Your task to perform on an android device: Go to Maps Image 0: 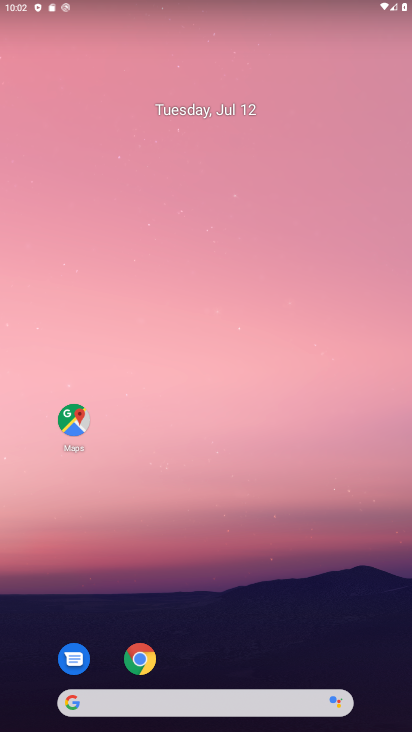
Step 0: drag from (189, 554) to (186, 447)
Your task to perform on an android device: Go to Maps Image 1: 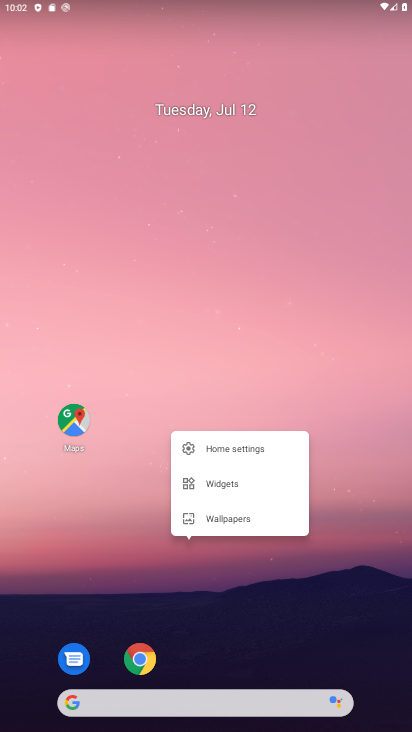
Step 1: click (72, 425)
Your task to perform on an android device: Go to Maps Image 2: 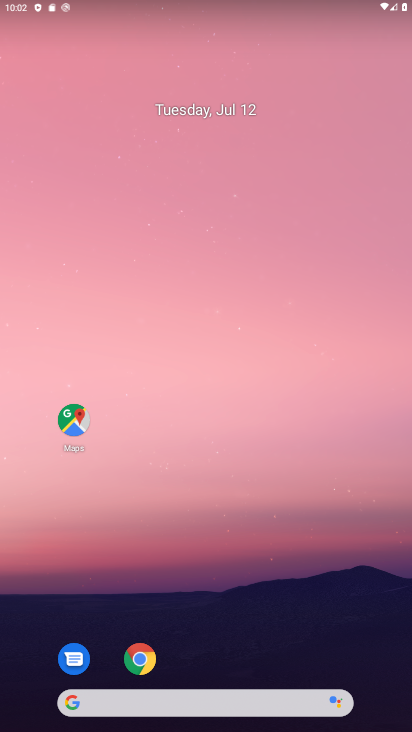
Step 2: click (72, 425)
Your task to perform on an android device: Go to Maps Image 3: 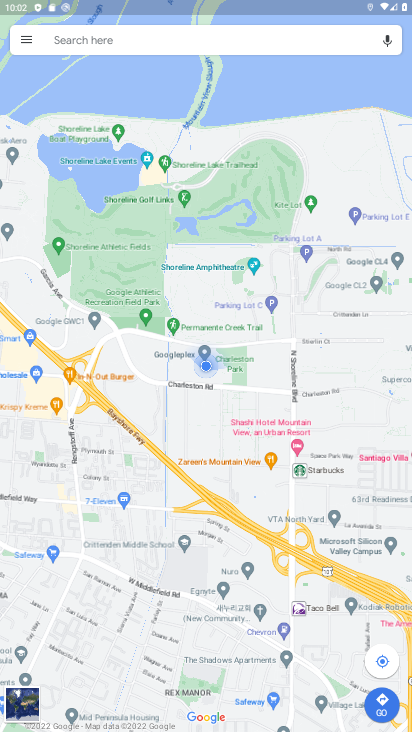
Step 3: task complete